Your task to perform on an android device: toggle improve location accuracy Image 0: 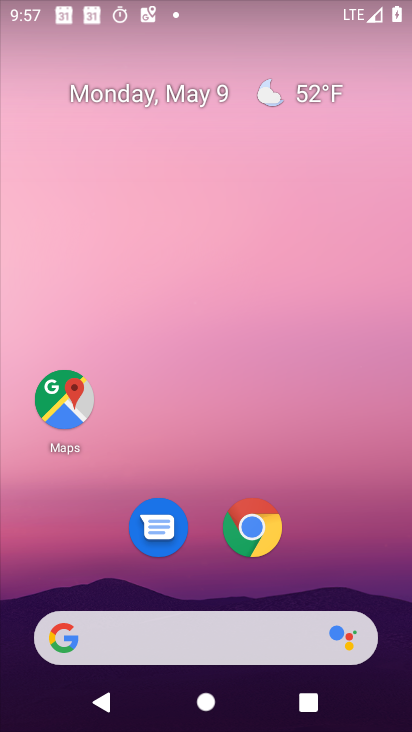
Step 0: drag from (344, 565) to (359, 128)
Your task to perform on an android device: toggle improve location accuracy Image 1: 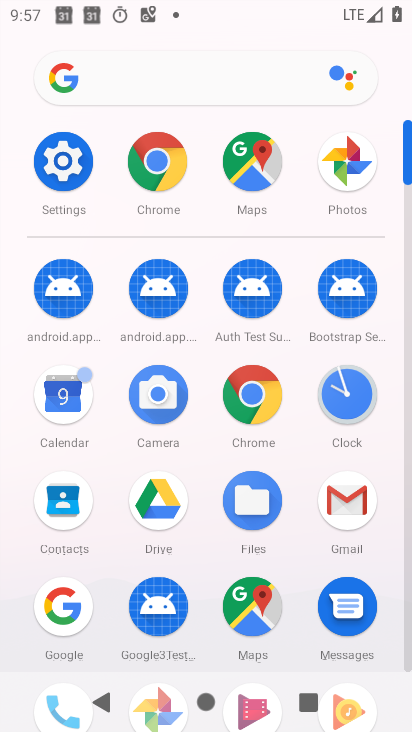
Step 1: click (50, 175)
Your task to perform on an android device: toggle improve location accuracy Image 2: 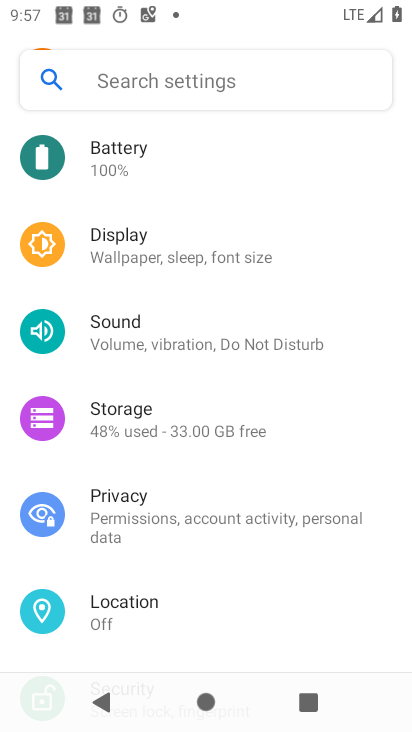
Step 2: drag from (241, 234) to (269, 559)
Your task to perform on an android device: toggle improve location accuracy Image 3: 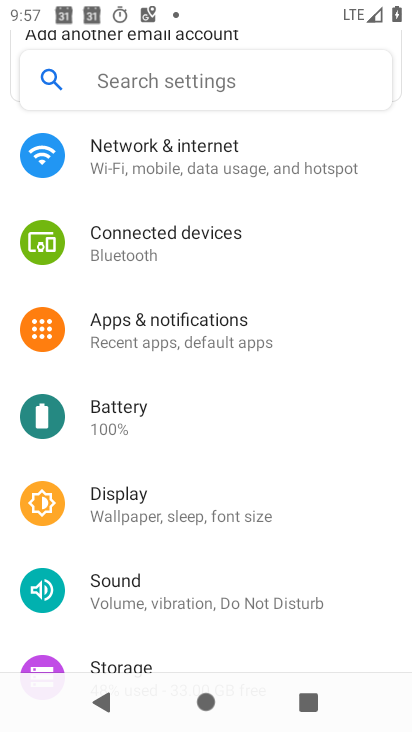
Step 3: drag from (333, 589) to (360, 308)
Your task to perform on an android device: toggle improve location accuracy Image 4: 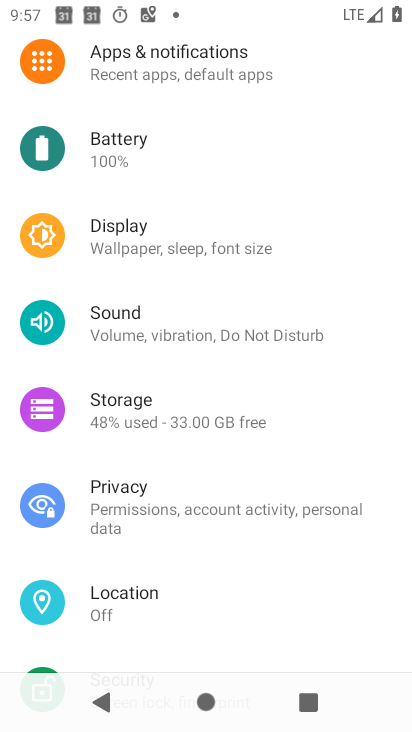
Step 4: click (183, 590)
Your task to perform on an android device: toggle improve location accuracy Image 5: 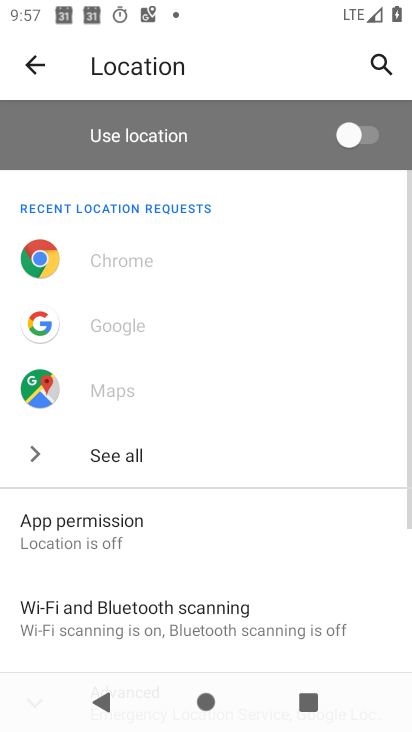
Step 5: drag from (326, 653) to (363, 392)
Your task to perform on an android device: toggle improve location accuracy Image 6: 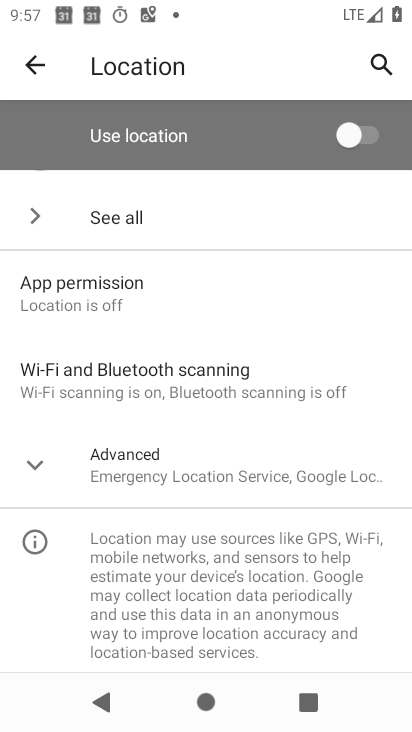
Step 6: click (241, 458)
Your task to perform on an android device: toggle improve location accuracy Image 7: 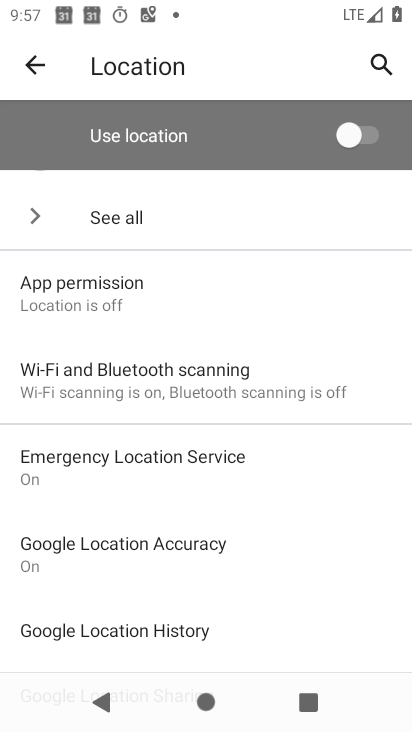
Step 7: drag from (274, 555) to (274, 392)
Your task to perform on an android device: toggle improve location accuracy Image 8: 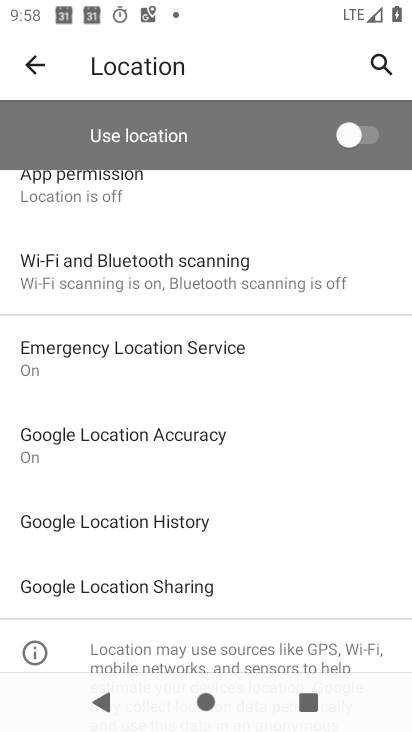
Step 8: click (168, 429)
Your task to perform on an android device: toggle improve location accuracy Image 9: 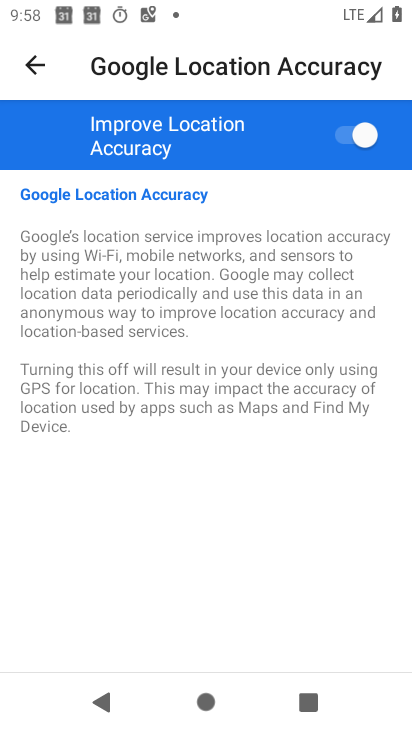
Step 9: click (346, 135)
Your task to perform on an android device: toggle improve location accuracy Image 10: 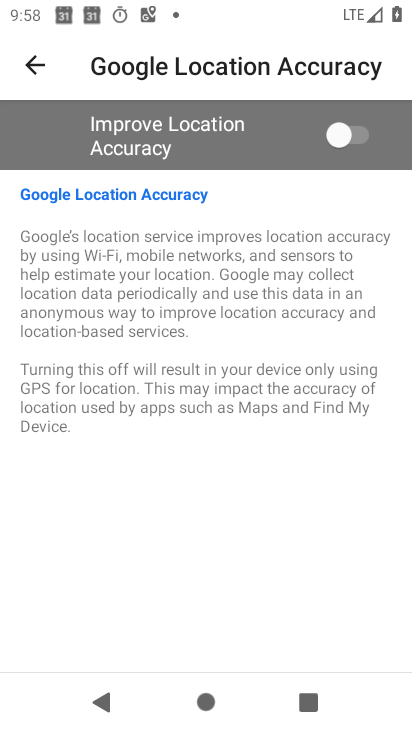
Step 10: task complete